Your task to perform on an android device: uninstall "Google Keep" Image 0: 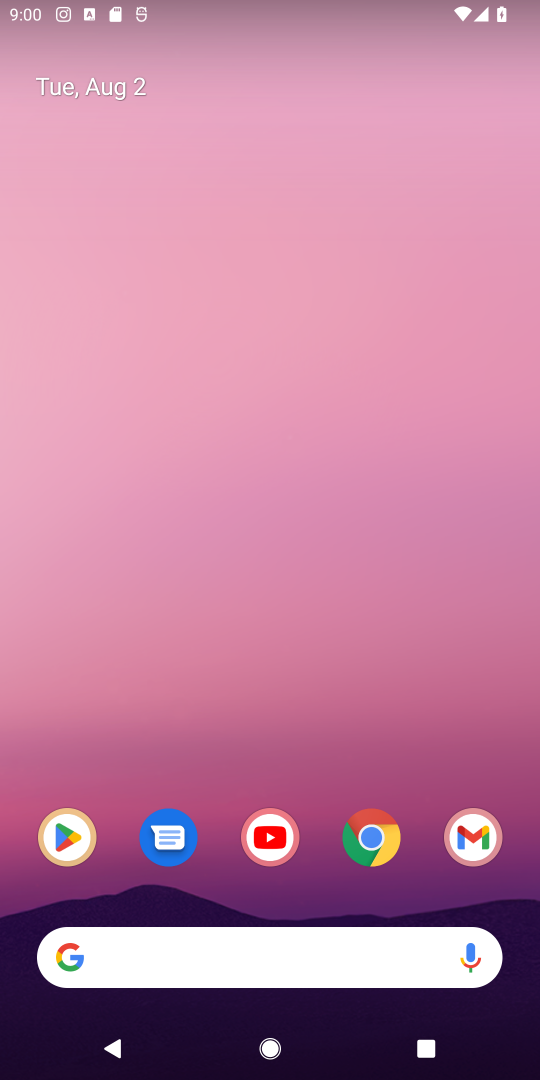
Step 0: click (80, 858)
Your task to perform on an android device: uninstall "Google Keep" Image 1: 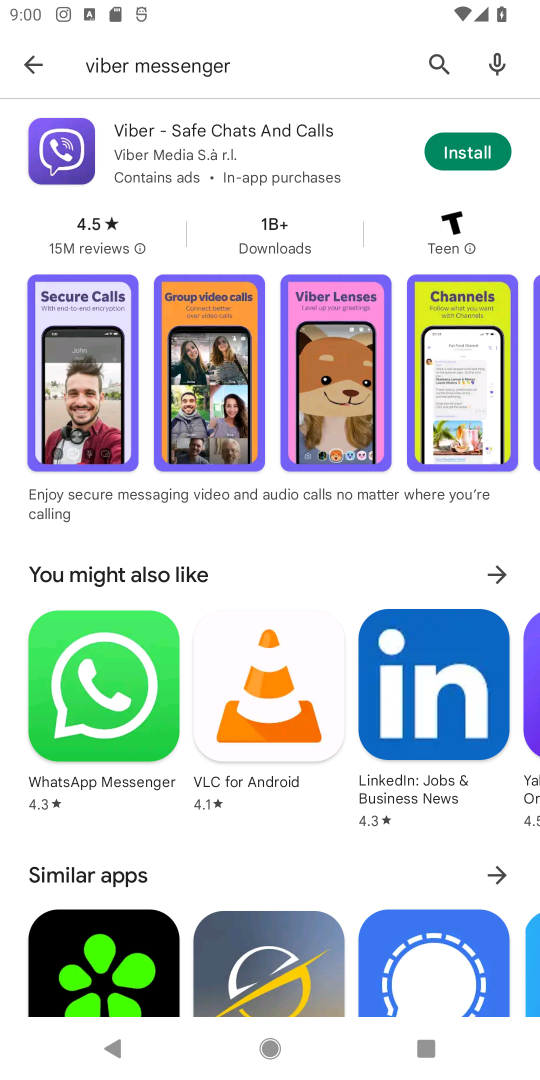
Step 1: click (433, 60)
Your task to perform on an android device: uninstall "Google Keep" Image 2: 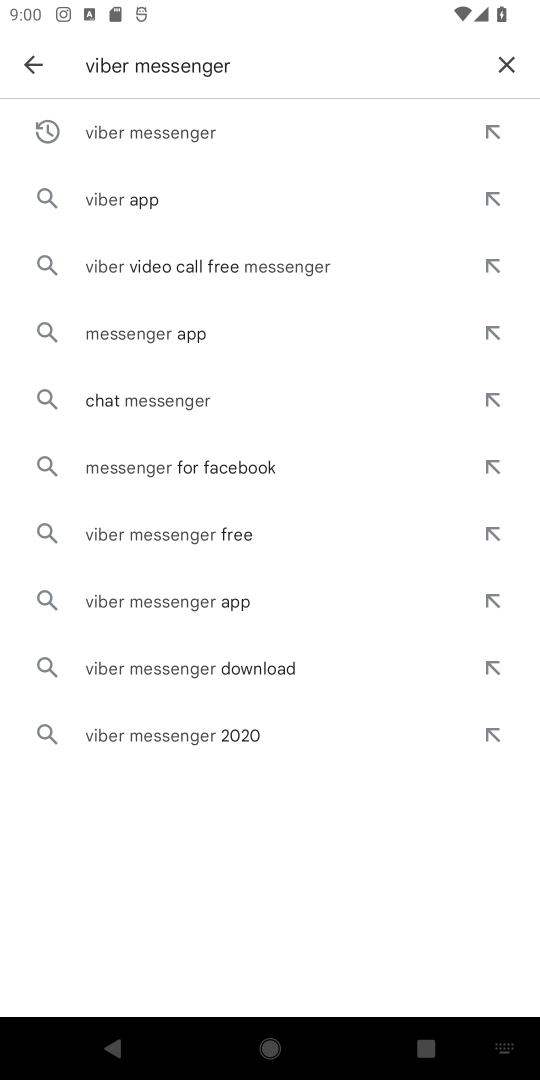
Step 2: click (518, 61)
Your task to perform on an android device: uninstall "Google Keep" Image 3: 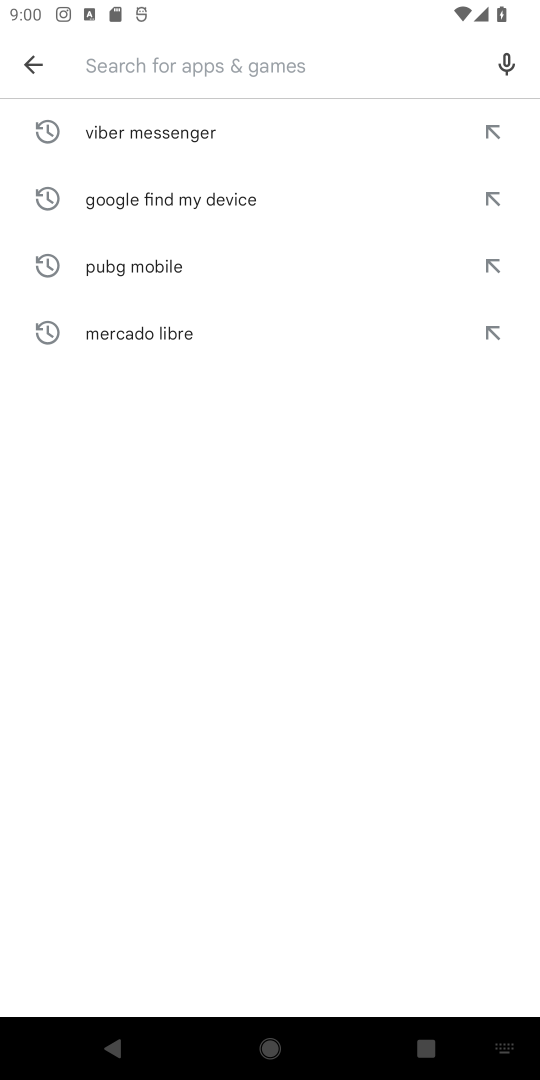
Step 3: type "Google Keep"
Your task to perform on an android device: uninstall "Google Keep" Image 4: 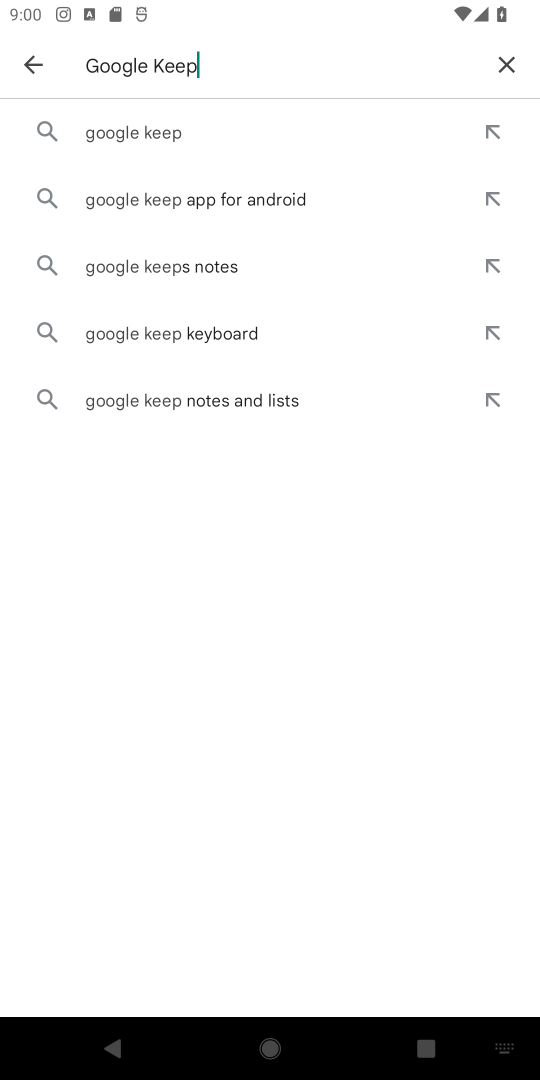
Step 4: click (141, 144)
Your task to perform on an android device: uninstall "Google Keep" Image 5: 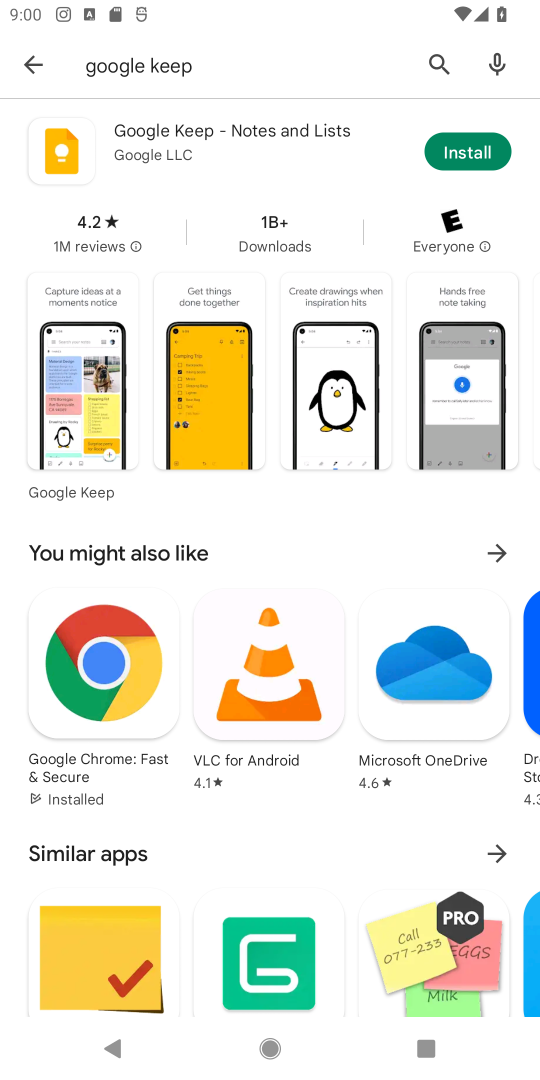
Step 5: task complete